Your task to perform on an android device: Go to Reddit.com Image 0: 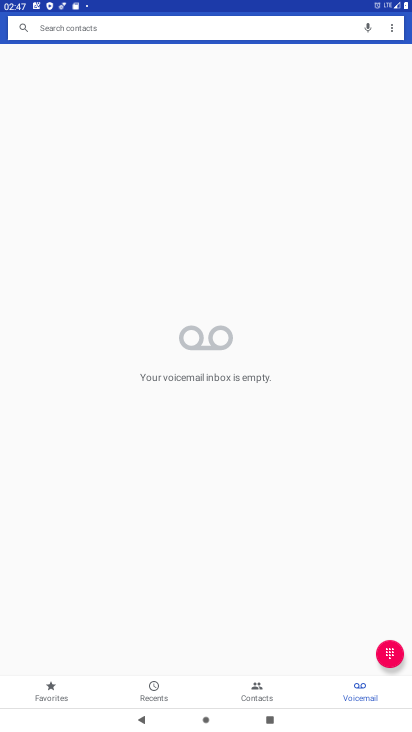
Step 0: press home button
Your task to perform on an android device: Go to Reddit.com Image 1: 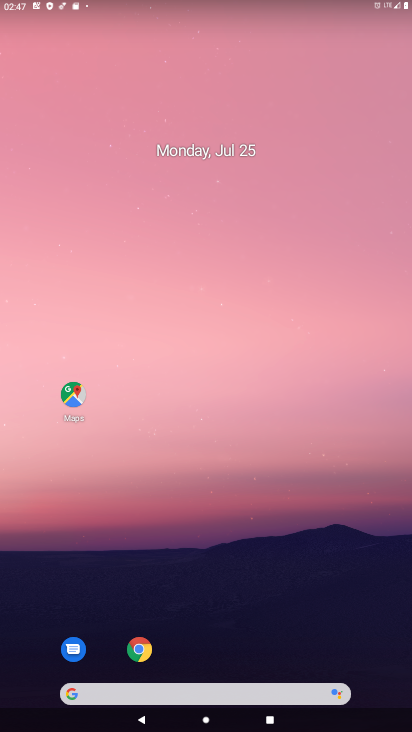
Step 1: click (137, 651)
Your task to perform on an android device: Go to Reddit.com Image 2: 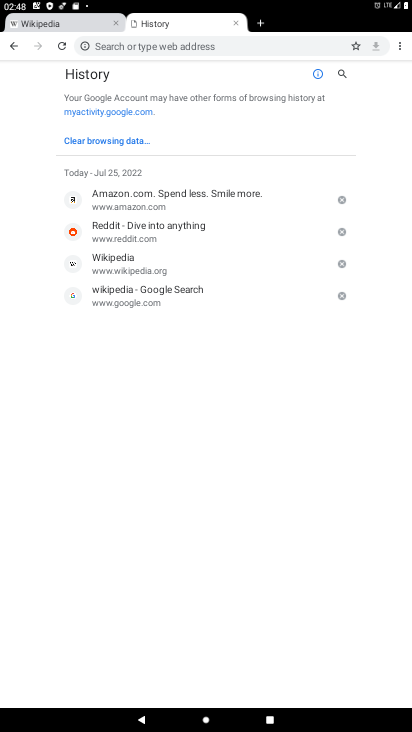
Step 2: click (170, 50)
Your task to perform on an android device: Go to Reddit.com Image 3: 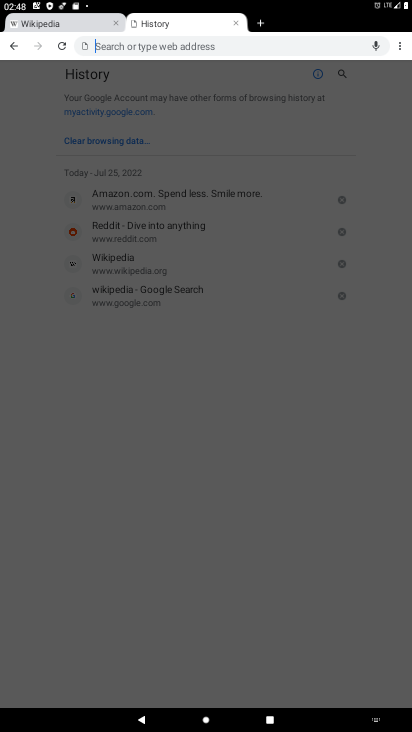
Step 3: type "reddit.com"
Your task to perform on an android device: Go to Reddit.com Image 4: 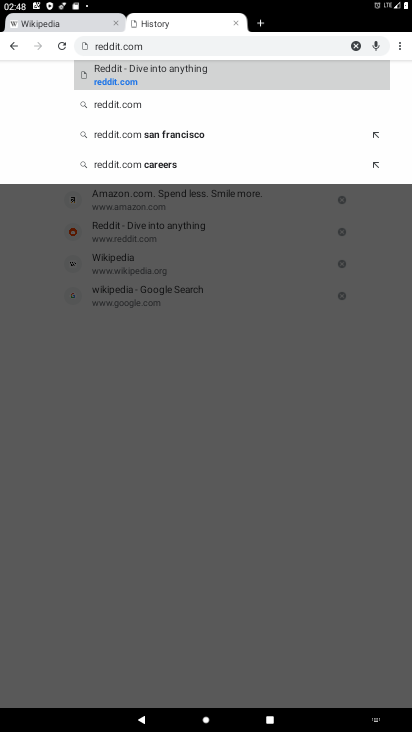
Step 4: click (121, 65)
Your task to perform on an android device: Go to Reddit.com Image 5: 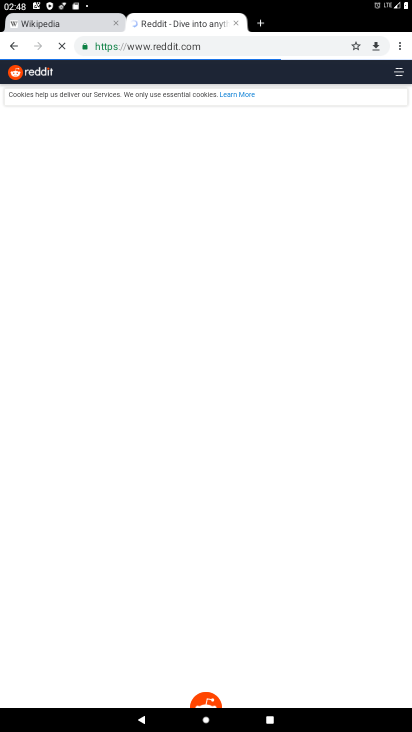
Step 5: task complete